Your task to perform on an android device: toggle sleep mode Image 0: 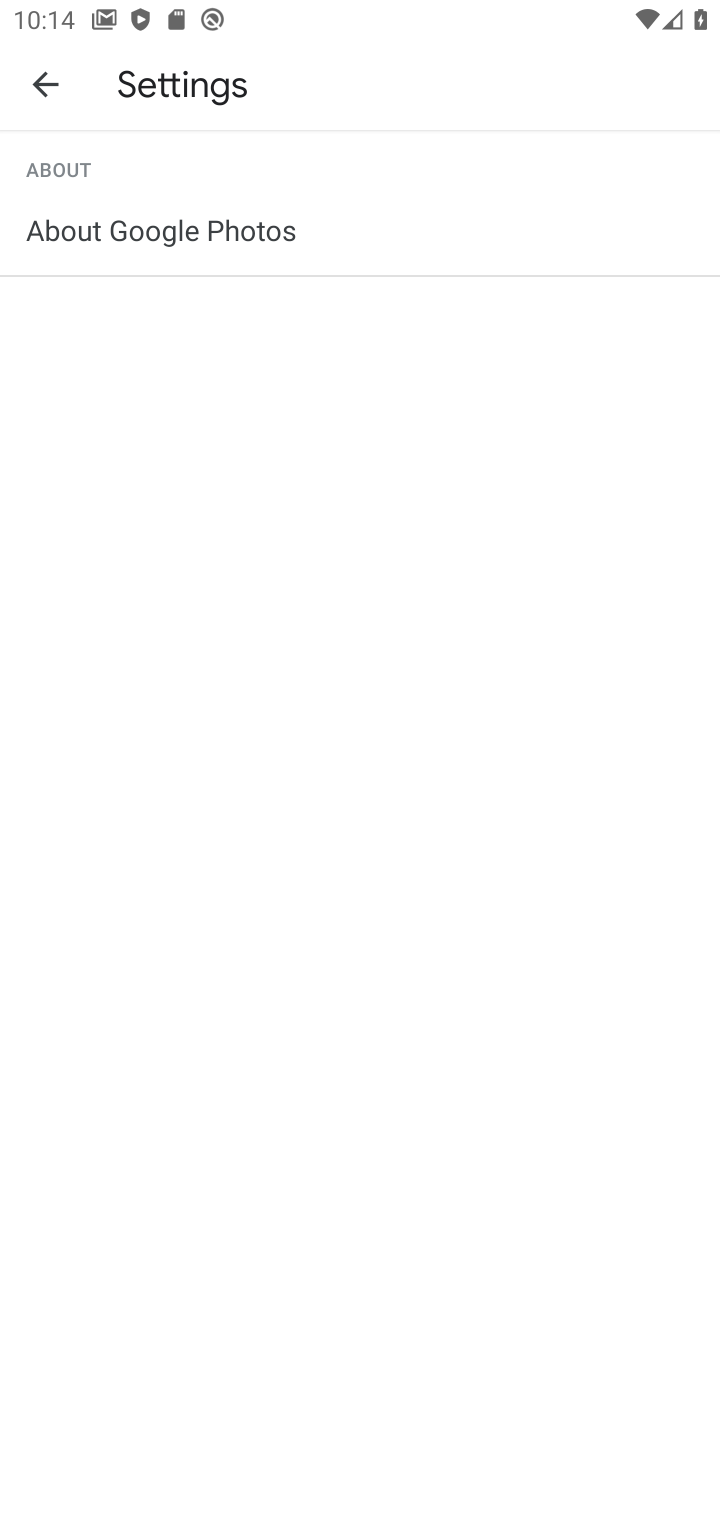
Step 0: press back button
Your task to perform on an android device: toggle sleep mode Image 1: 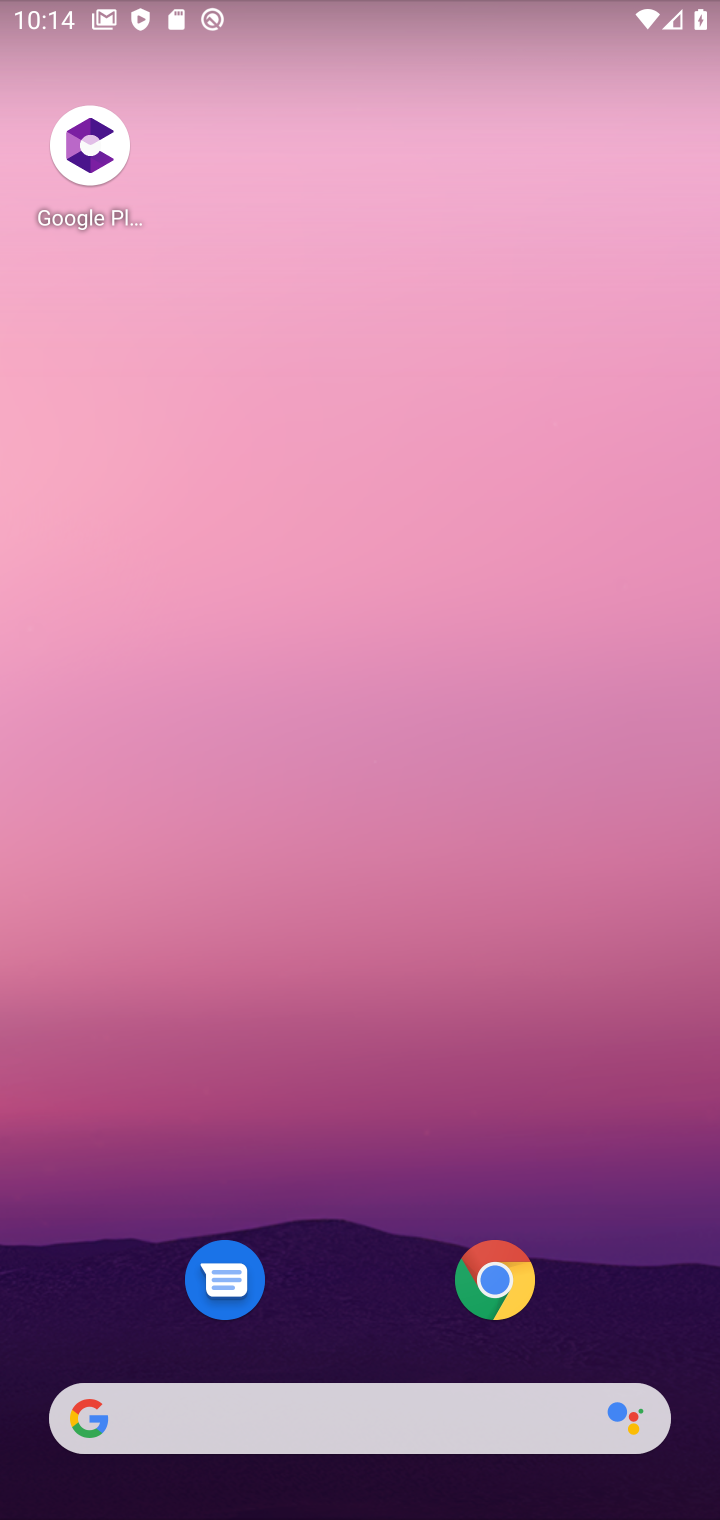
Step 1: drag from (326, 1109) to (482, 3)
Your task to perform on an android device: toggle sleep mode Image 2: 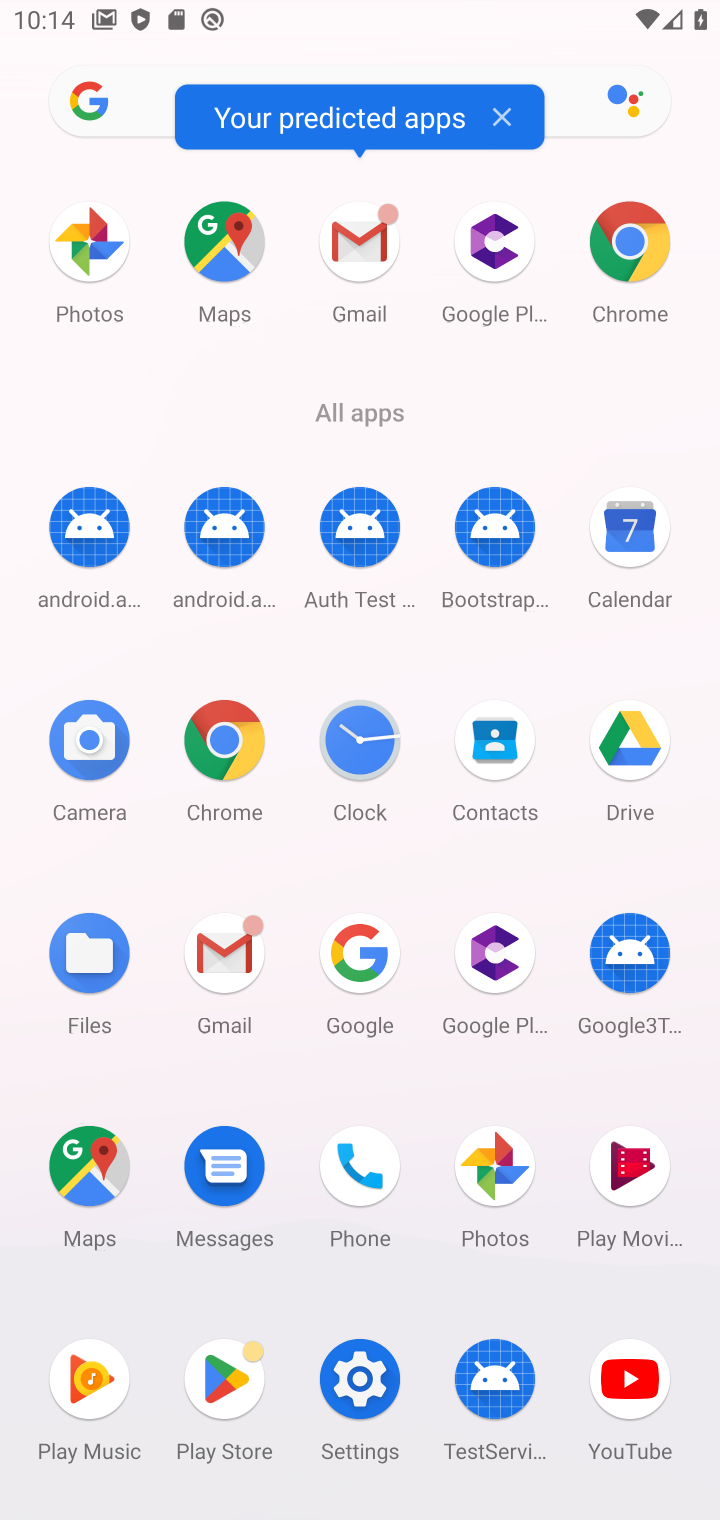
Step 2: click (354, 1374)
Your task to perform on an android device: toggle sleep mode Image 3: 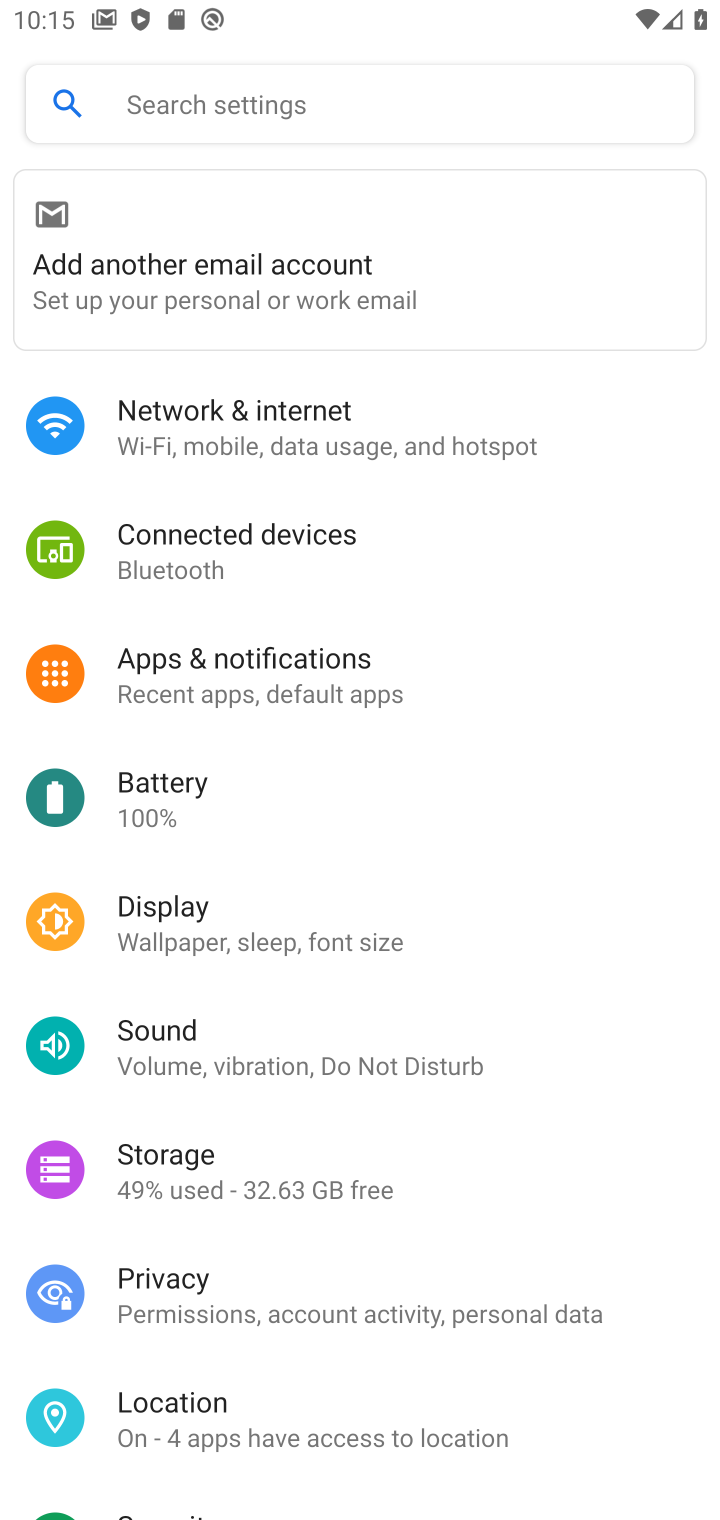
Step 3: click (346, 105)
Your task to perform on an android device: toggle sleep mode Image 4: 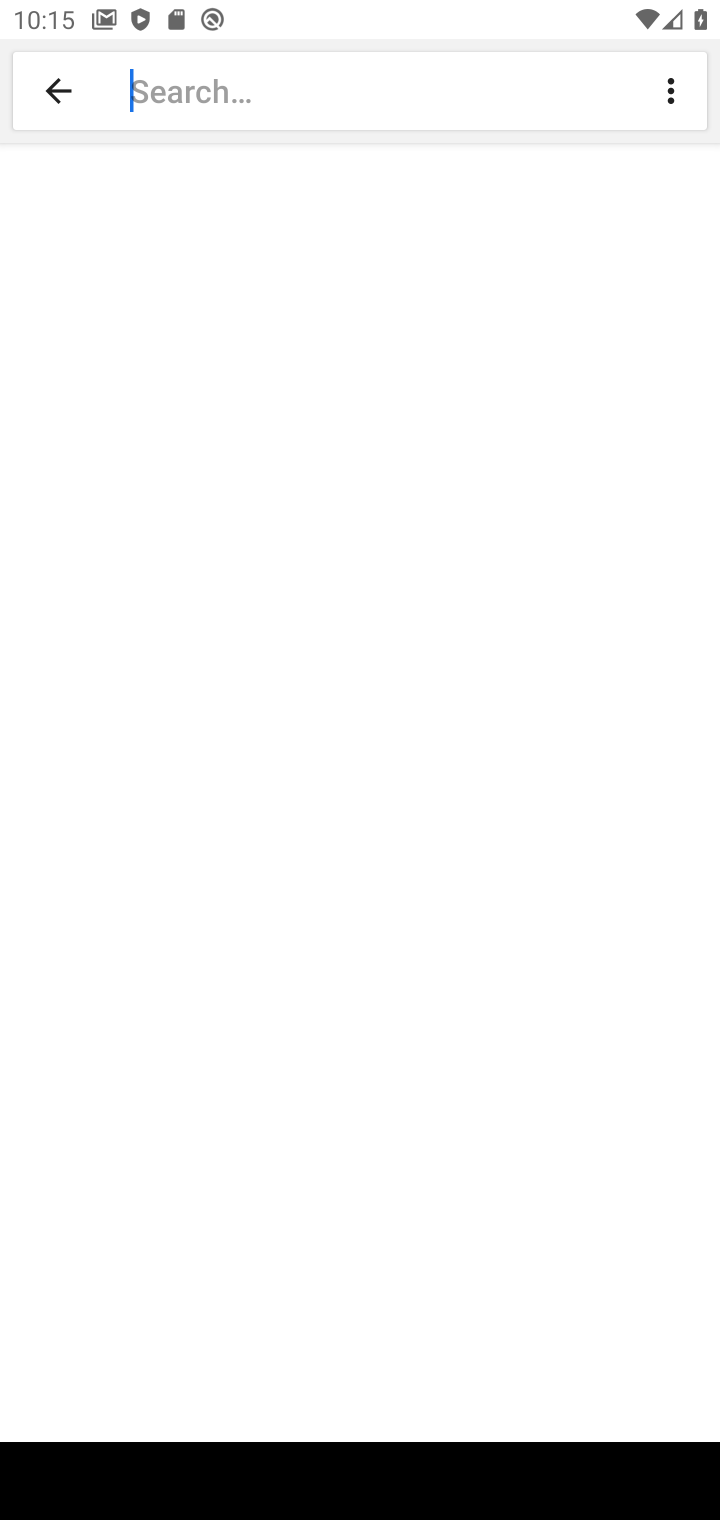
Step 4: type "sleep mode"
Your task to perform on an android device: toggle sleep mode Image 5: 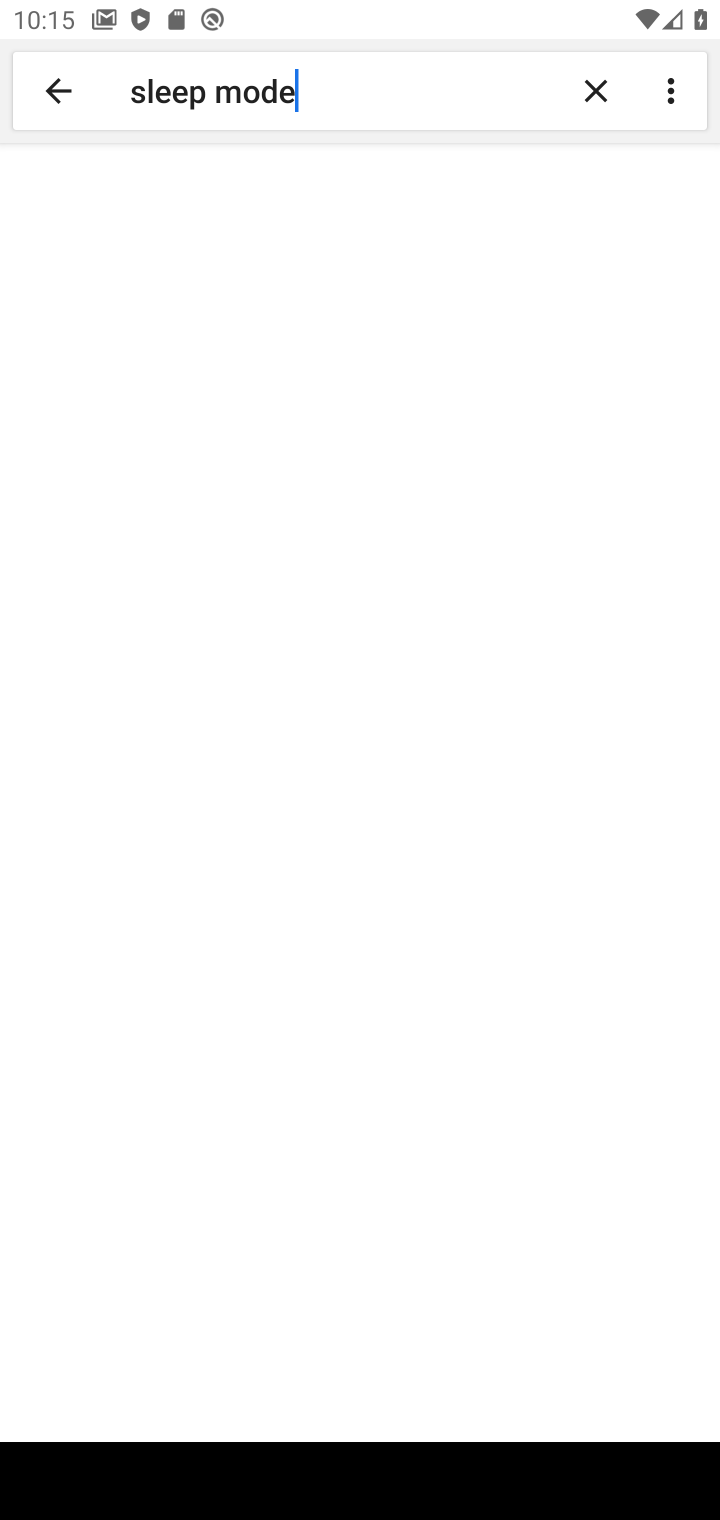
Step 5: task complete